Your task to perform on an android device: set the timer Image 0: 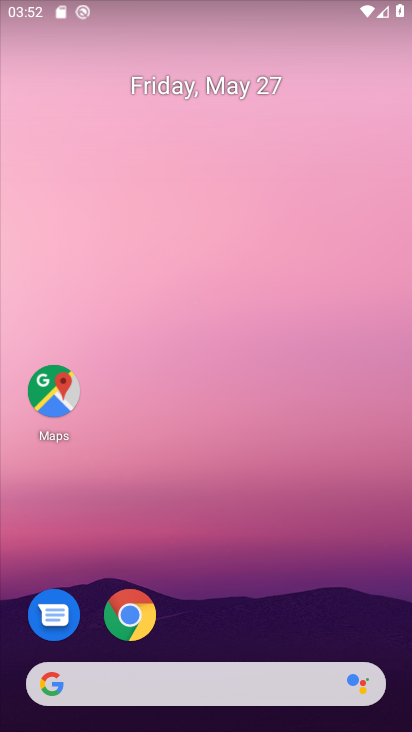
Step 0: drag from (105, 728) to (367, 710)
Your task to perform on an android device: set the timer Image 1: 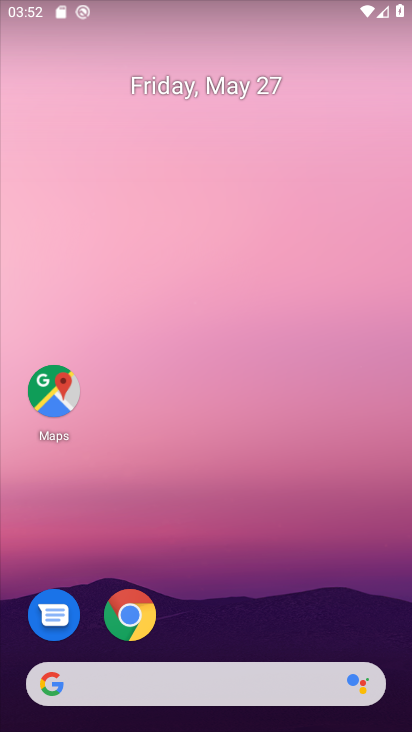
Step 1: drag from (135, 729) to (89, 44)
Your task to perform on an android device: set the timer Image 2: 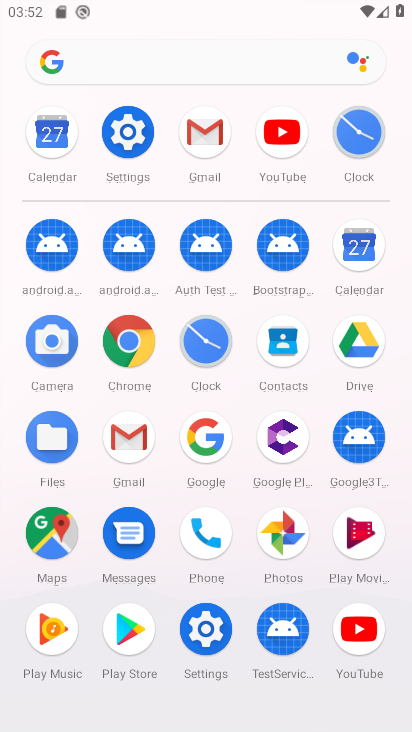
Step 2: click (205, 347)
Your task to perform on an android device: set the timer Image 3: 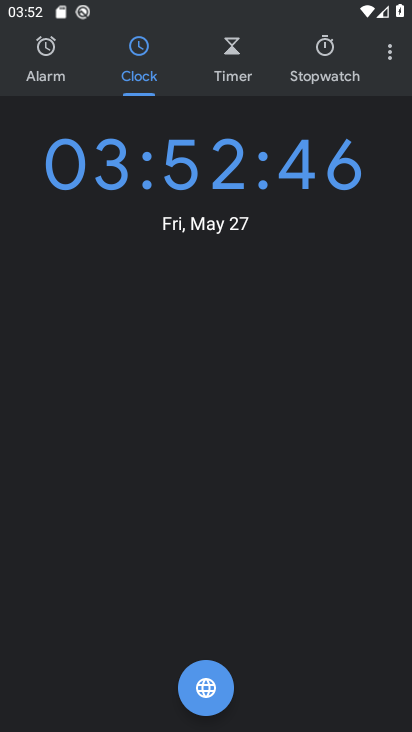
Step 3: click (227, 54)
Your task to perform on an android device: set the timer Image 4: 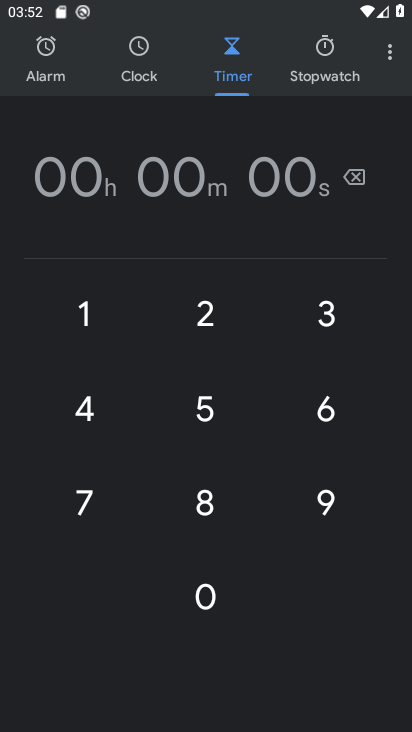
Step 4: click (87, 511)
Your task to perform on an android device: set the timer Image 5: 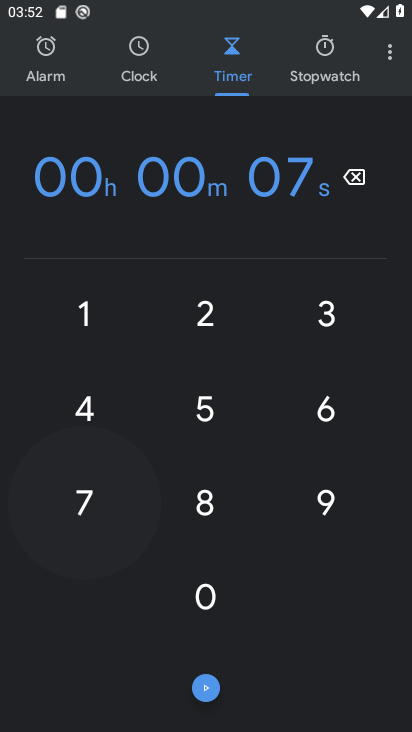
Step 5: click (331, 505)
Your task to perform on an android device: set the timer Image 6: 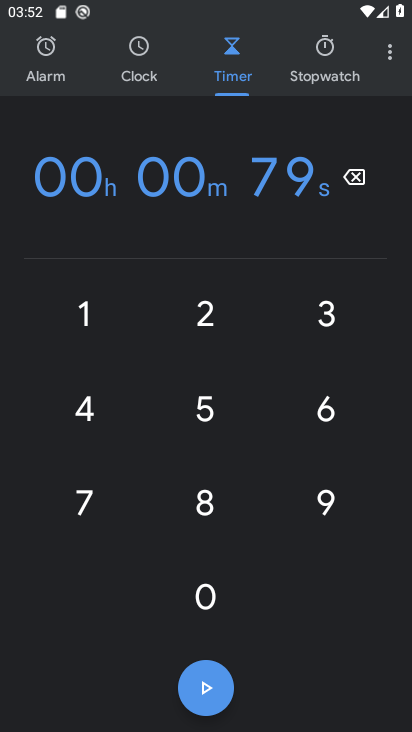
Step 6: click (200, 701)
Your task to perform on an android device: set the timer Image 7: 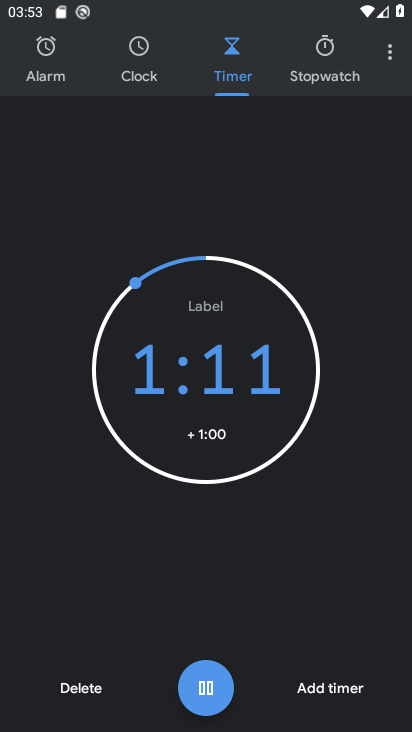
Step 7: click (217, 697)
Your task to perform on an android device: set the timer Image 8: 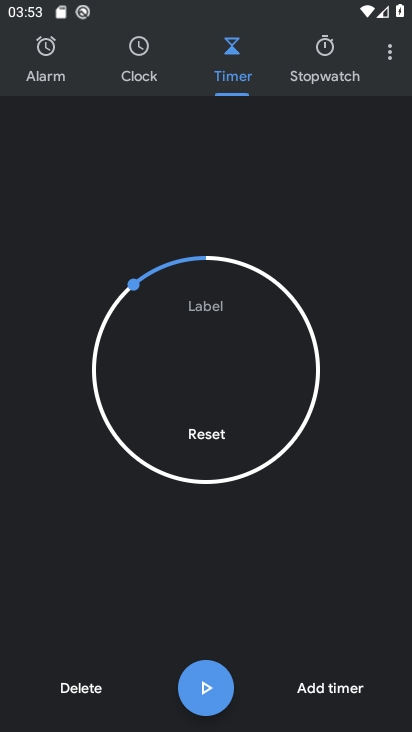
Step 8: task complete